Your task to perform on an android device: check data usage Image 0: 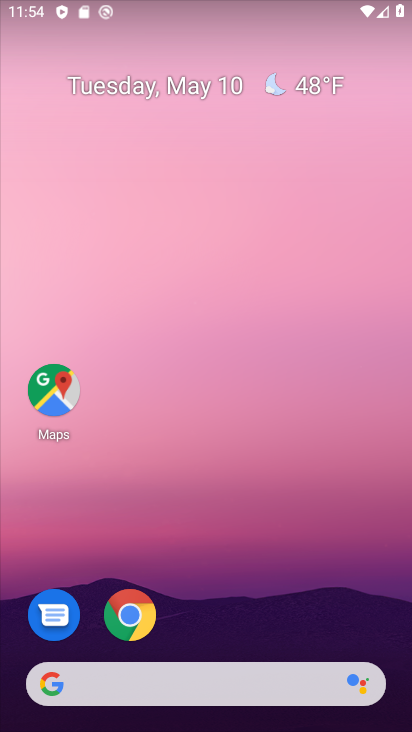
Step 0: drag from (242, 537) to (116, 296)
Your task to perform on an android device: check data usage Image 1: 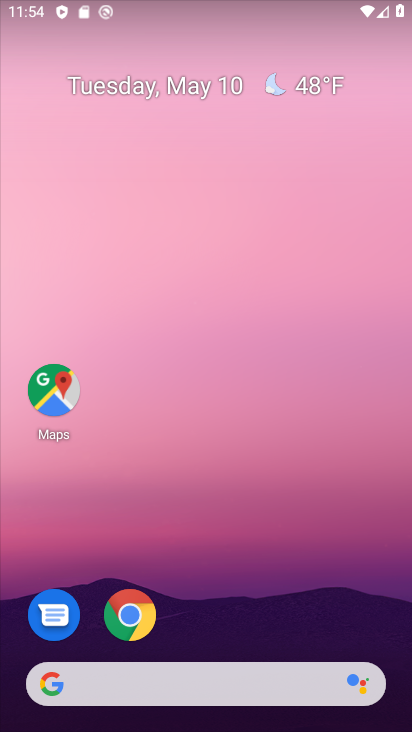
Step 1: drag from (200, 501) to (161, 256)
Your task to perform on an android device: check data usage Image 2: 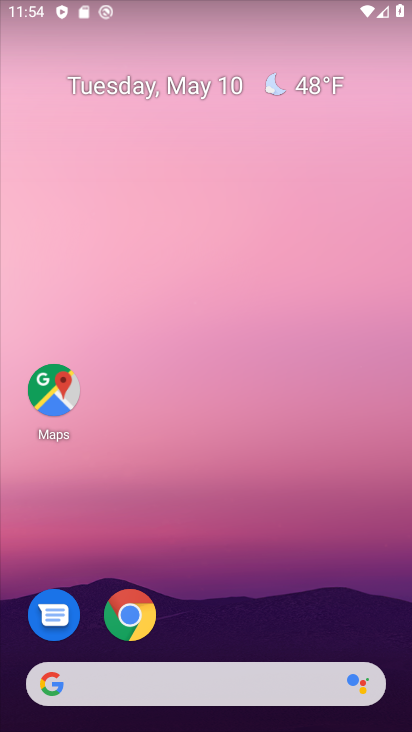
Step 2: drag from (307, 577) to (205, 178)
Your task to perform on an android device: check data usage Image 3: 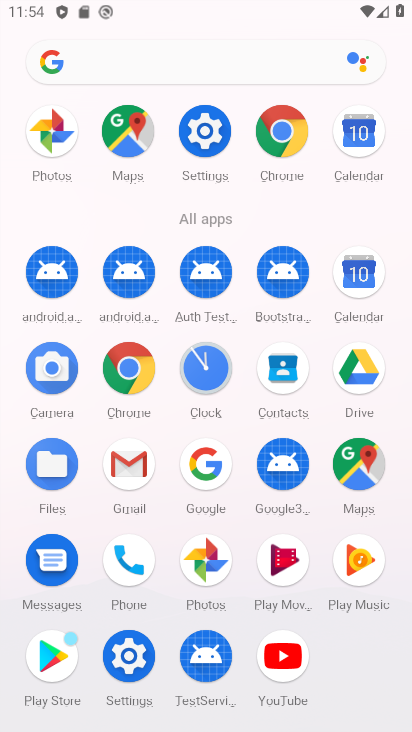
Step 3: click (192, 134)
Your task to perform on an android device: check data usage Image 4: 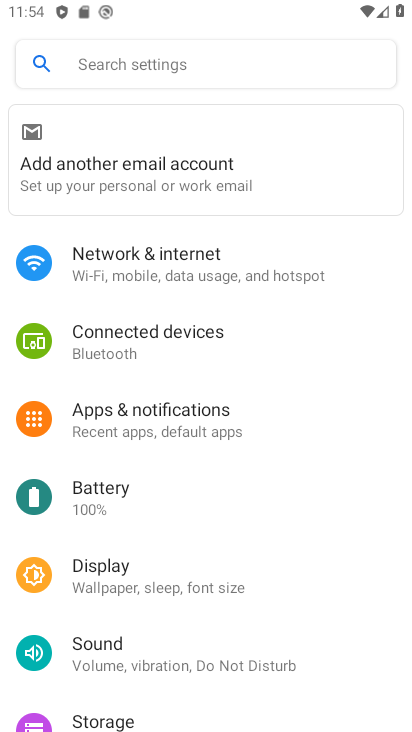
Step 4: click (182, 258)
Your task to perform on an android device: check data usage Image 5: 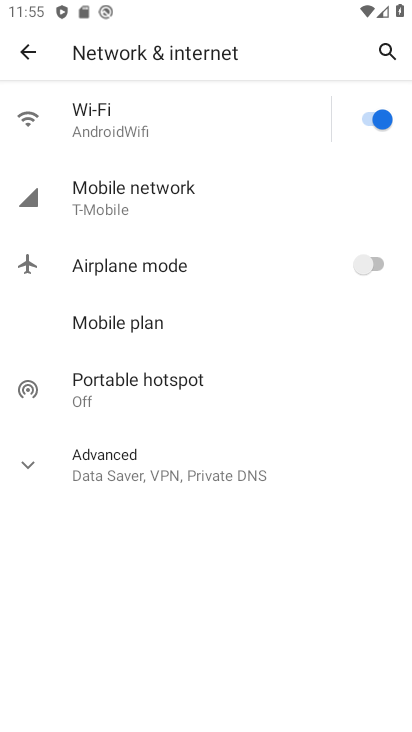
Step 5: click (168, 209)
Your task to perform on an android device: check data usage Image 6: 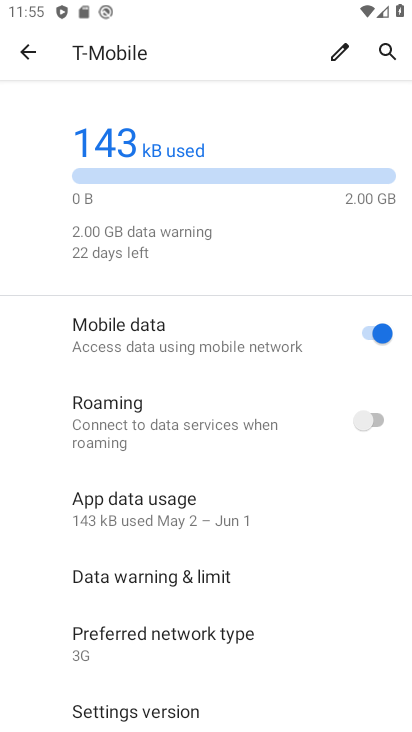
Step 6: task complete